Your task to perform on an android device: Go to ESPN.com Image 0: 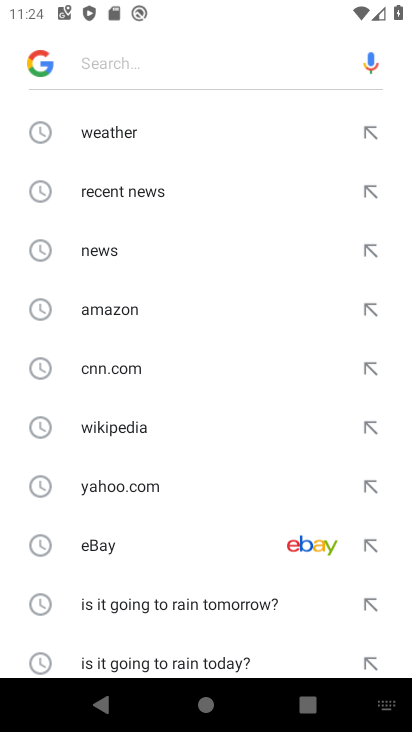
Step 0: type "espn.com"
Your task to perform on an android device: Go to ESPN.com Image 1: 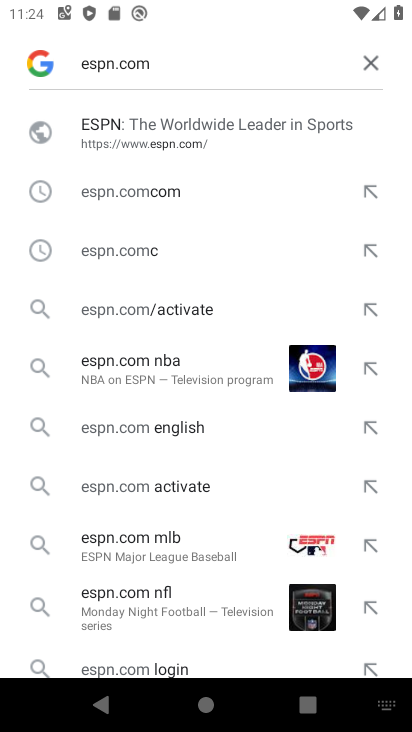
Step 1: click (132, 131)
Your task to perform on an android device: Go to ESPN.com Image 2: 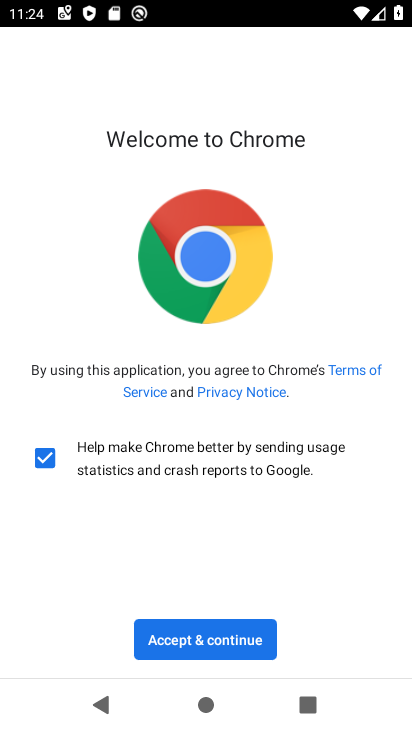
Step 2: click (197, 637)
Your task to perform on an android device: Go to ESPN.com Image 3: 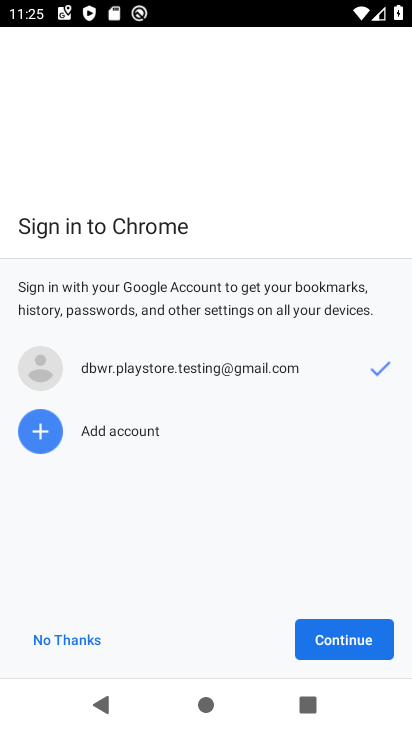
Step 3: click (339, 641)
Your task to perform on an android device: Go to ESPN.com Image 4: 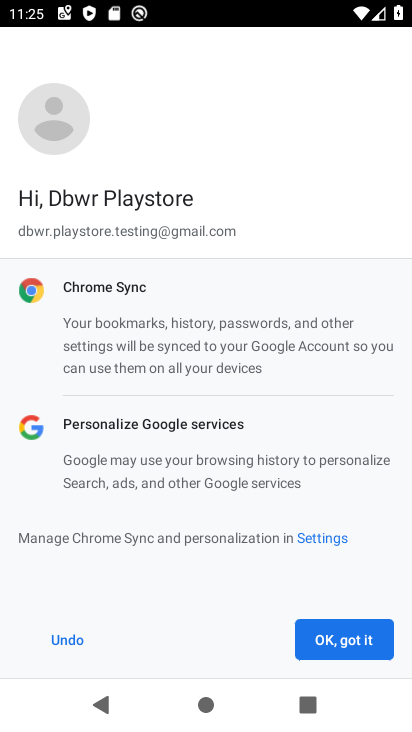
Step 4: click (345, 641)
Your task to perform on an android device: Go to ESPN.com Image 5: 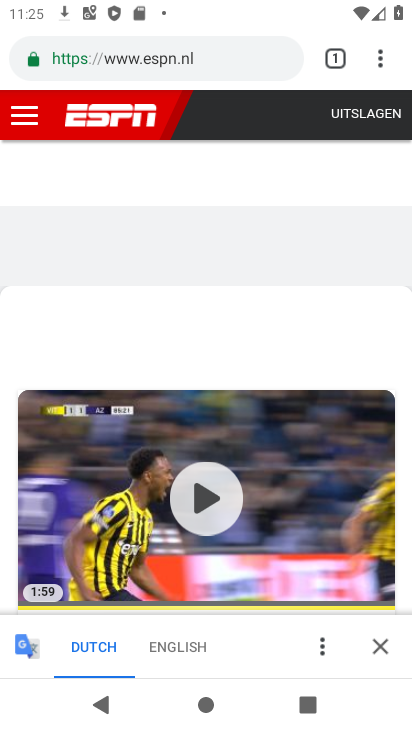
Step 5: task complete